Your task to perform on an android device: change the upload size in google photos Image 0: 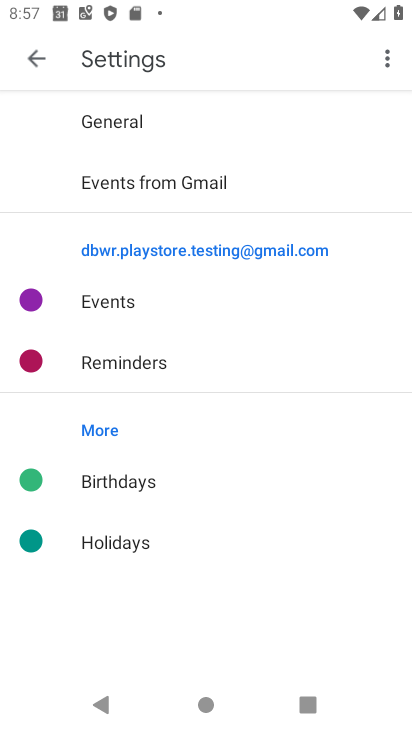
Step 0: press home button
Your task to perform on an android device: change the upload size in google photos Image 1: 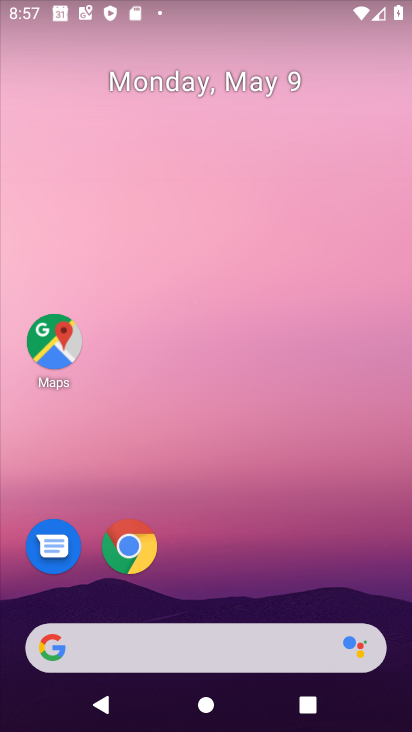
Step 1: drag from (239, 702) to (253, 147)
Your task to perform on an android device: change the upload size in google photos Image 2: 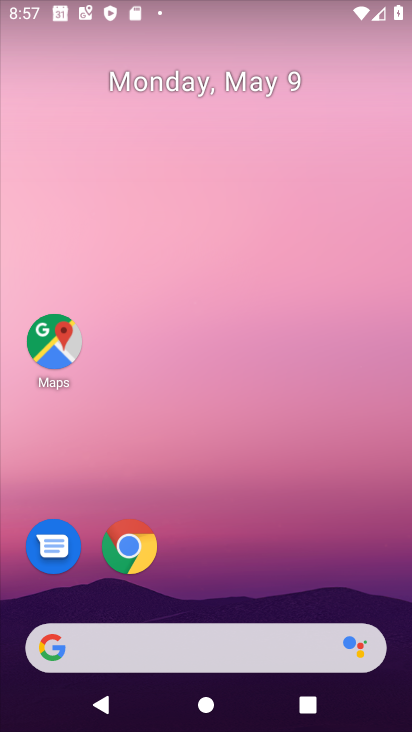
Step 2: drag from (273, 704) to (344, 58)
Your task to perform on an android device: change the upload size in google photos Image 3: 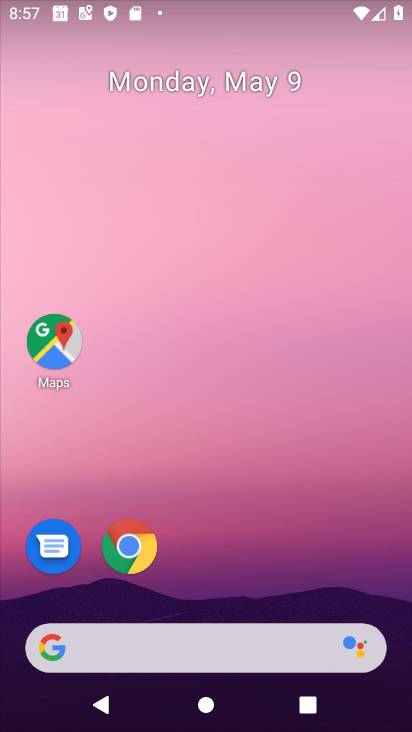
Step 3: drag from (265, 701) to (216, 30)
Your task to perform on an android device: change the upload size in google photos Image 4: 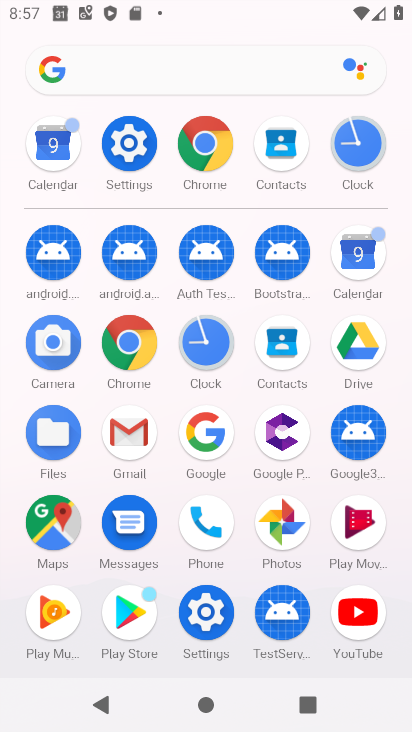
Step 4: click (288, 518)
Your task to perform on an android device: change the upload size in google photos Image 5: 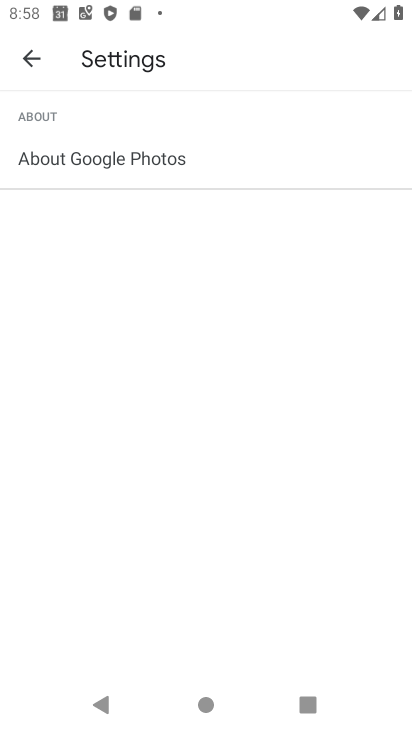
Step 5: click (45, 57)
Your task to perform on an android device: change the upload size in google photos Image 6: 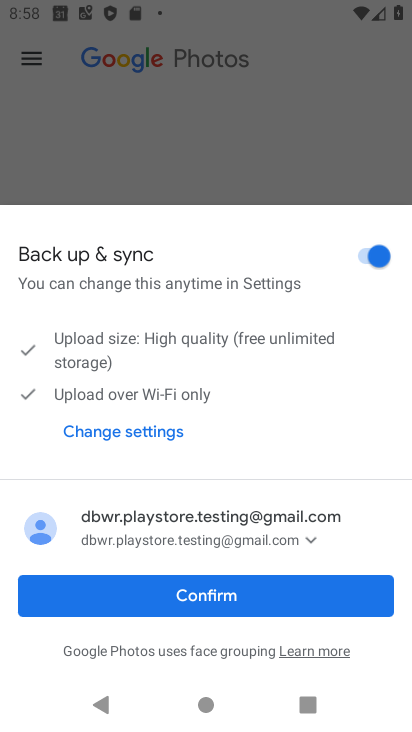
Step 6: click (258, 599)
Your task to perform on an android device: change the upload size in google photos Image 7: 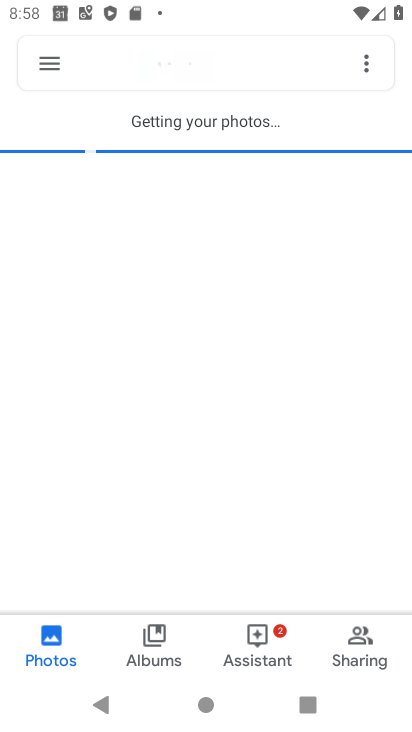
Step 7: click (49, 53)
Your task to perform on an android device: change the upload size in google photos Image 8: 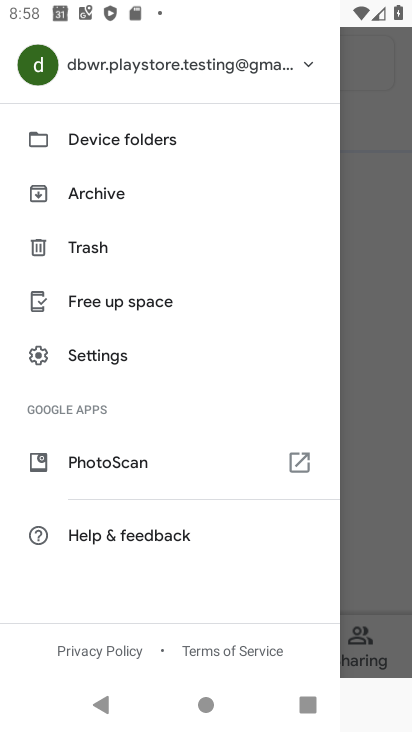
Step 8: click (110, 361)
Your task to perform on an android device: change the upload size in google photos Image 9: 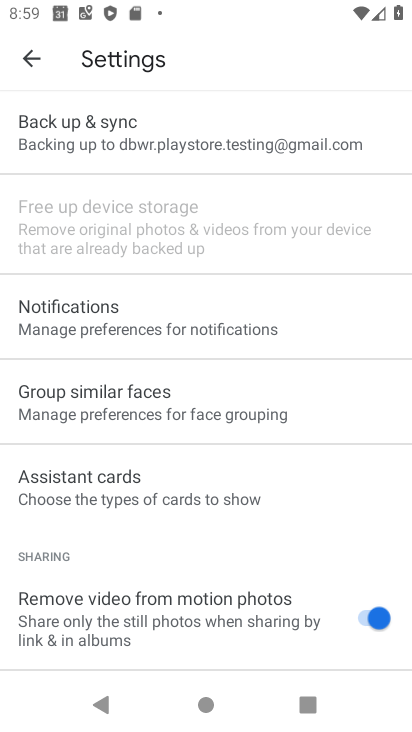
Step 9: click (181, 139)
Your task to perform on an android device: change the upload size in google photos Image 10: 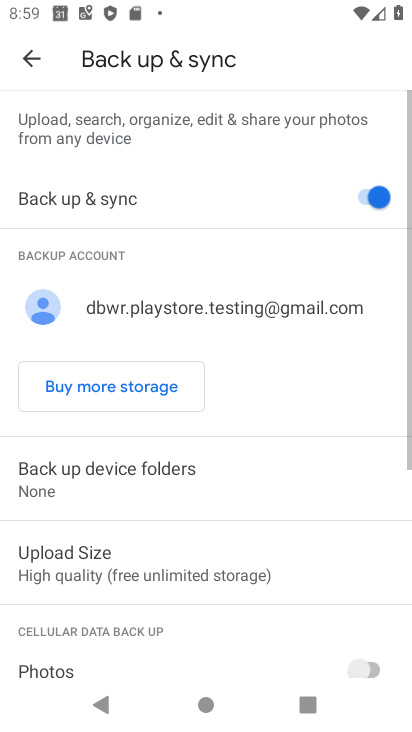
Step 10: click (153, 560)
Your task to perform on an android device: change the upload size in google photos Image 11: 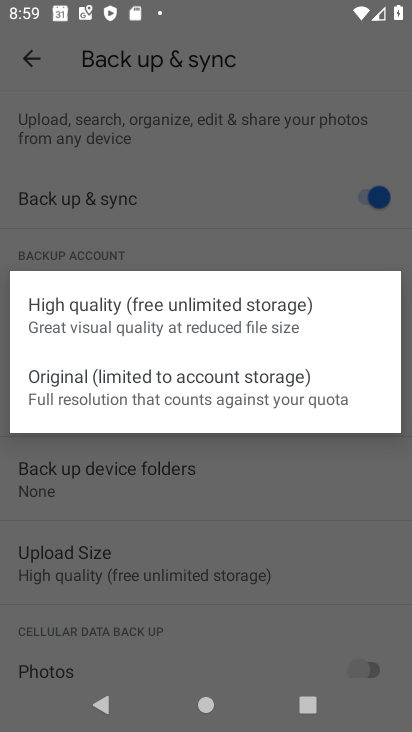
Step 11: click (194, 379)
Your task to perform on an android device: change the upload size in google photos Image 12: 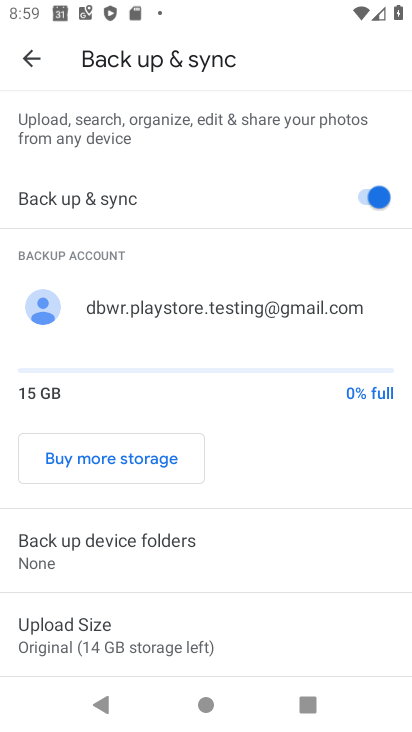
Step 12: task complete